Your task to perform on an android device: Open Google Maps and go to "Timeline" Image 0: 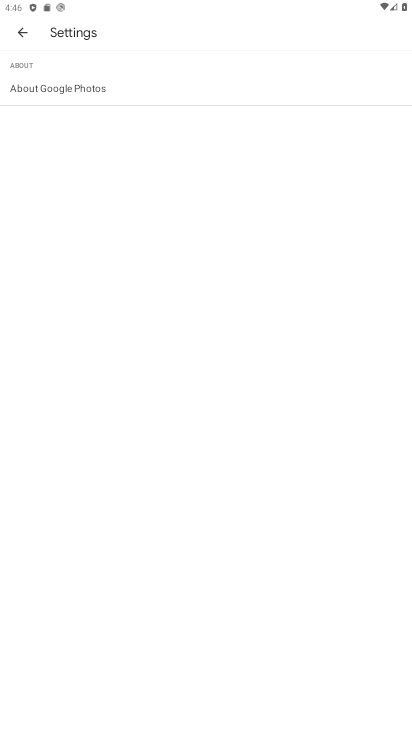
Step 0: press back button
Your task to perform on an android device: Open Google Maps and go to "Timeline" Image 1: 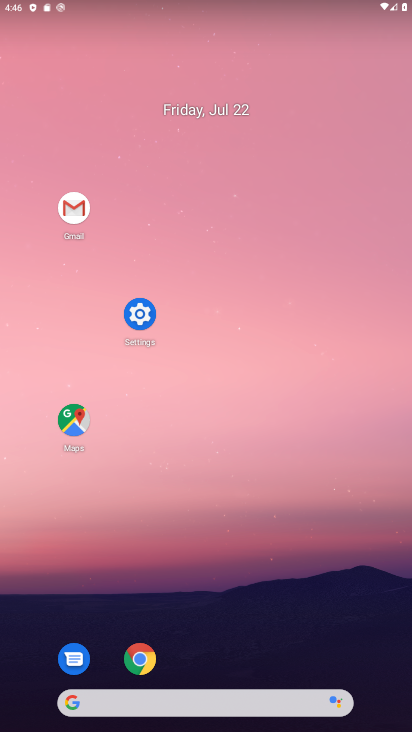
Step 1: click (83, 413)
Your task to perform on an android device: Open Google Maps and go to "Timeline" Image 2: 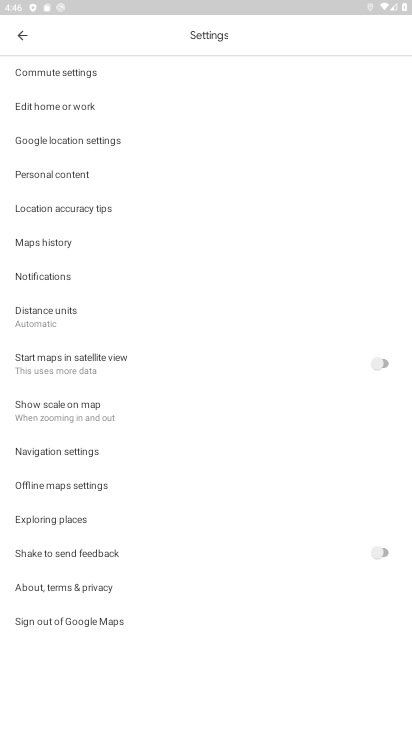
Step 2: click (28, 32)
Your task to perform on an android device: Open Google Maps and go to "Timeline" Image 3: 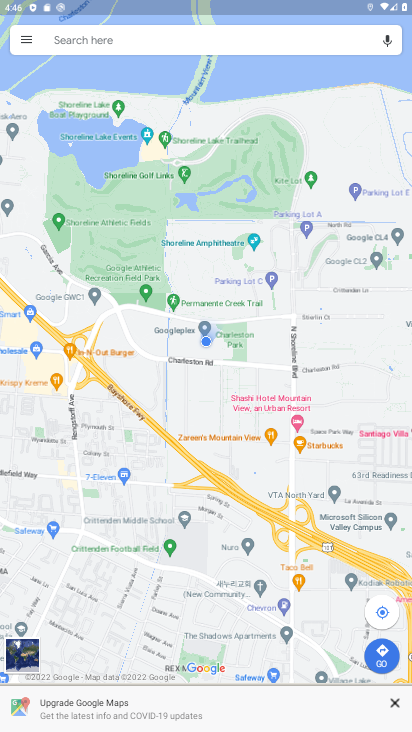
Step 3: click (28, 33)
Your task to perform on an android device: Open Google Maps and go to "Timeline" Image 4: 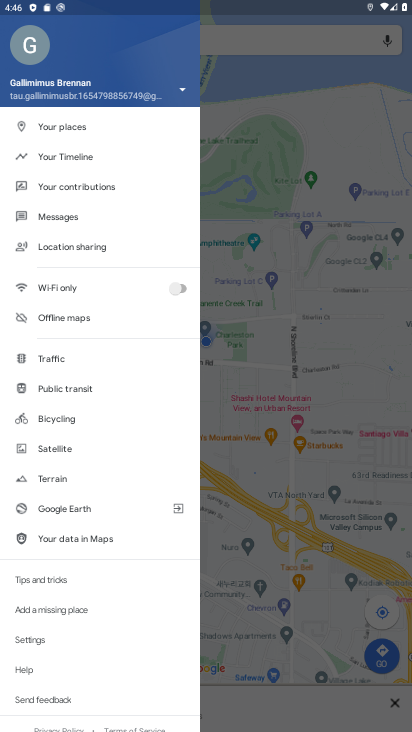
Step 4: click (98, 151)
Your task to perform on an android device: Open Google Maps and go to "Timeline" Image 5: 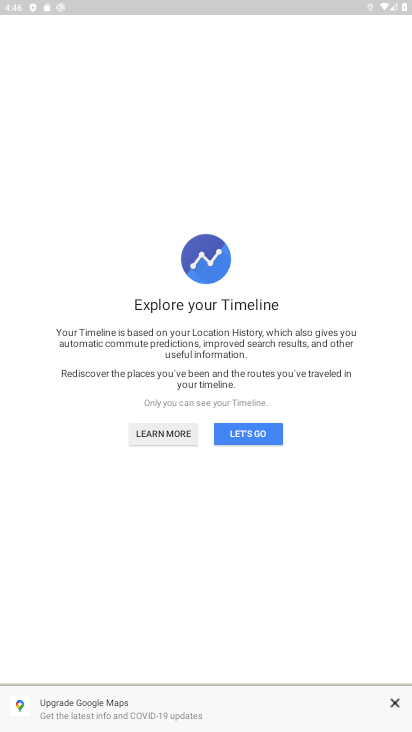
Step 5: click (235, 429)
Your task to perform on an android device: Open Google Maps and go to "Timeline" Image 6: 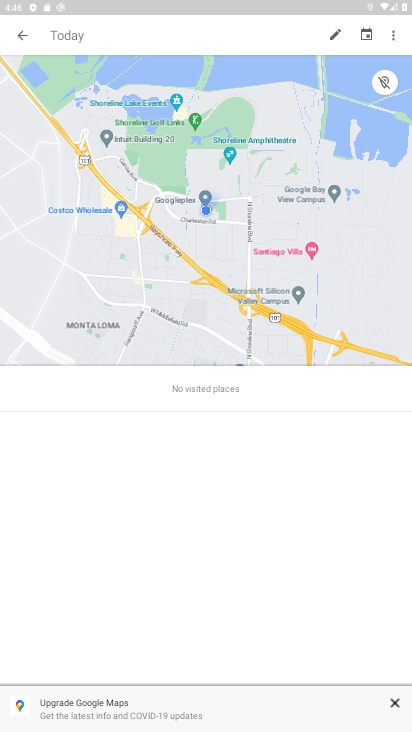
Step 6: task complete